Your task to perform on an android device: Open the calendar and show me this week's events? Image 0: 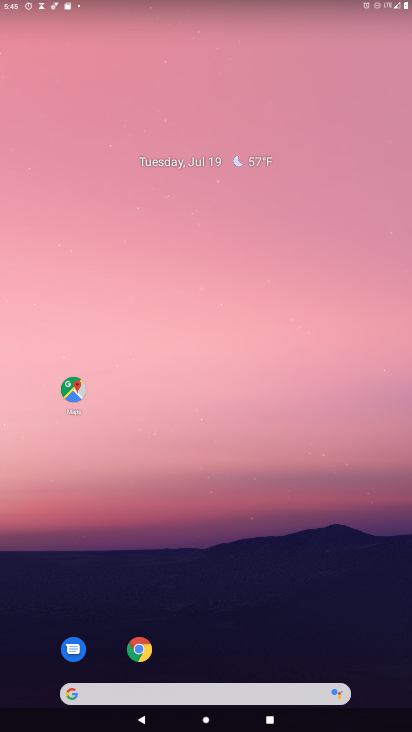
Step 0: drag from (190, 661) to (213, 219)
Your task to perform on an android device: Open the calendar and show me this week's events? Image 1: 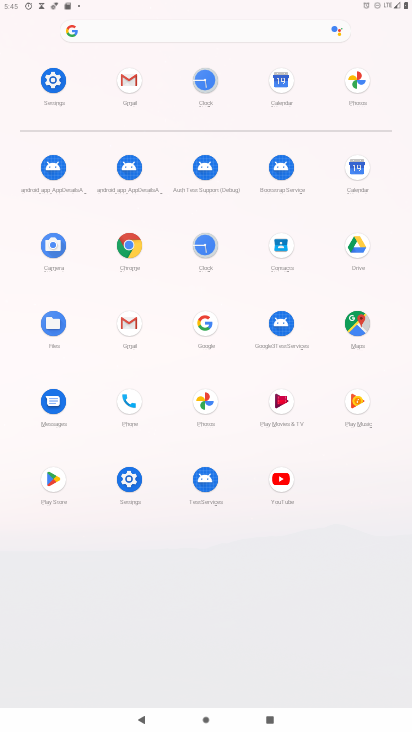
Step 1: click (358, 169)
Your task to perform on an android device: Open the calendar and show me this week's events? Image 2: 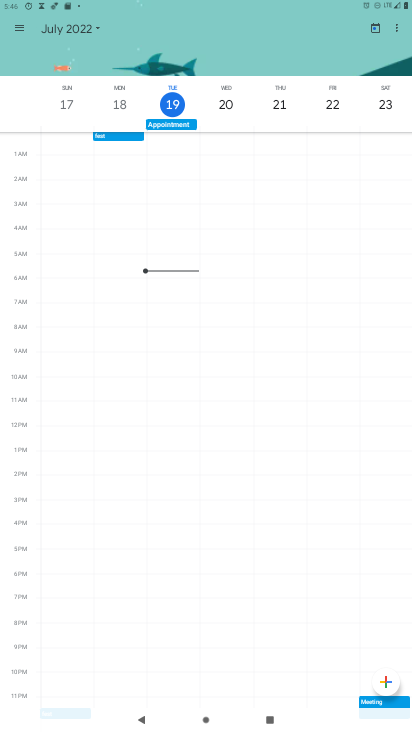
Step 2: task complete